Your task to perform on an android device: check out phone information Image 0: 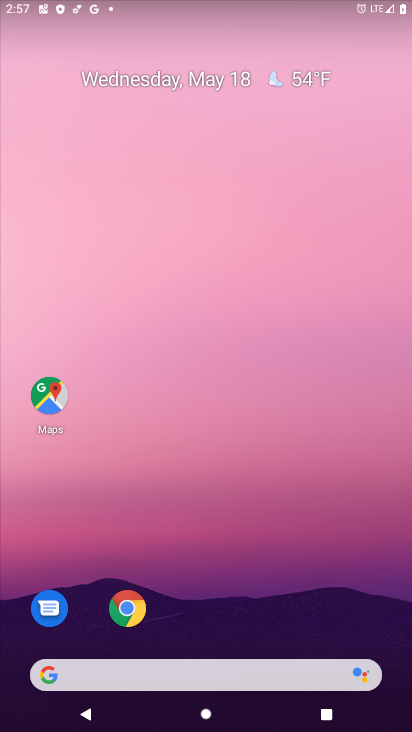
Step 0: drag from (321, 573) to (374, 48)
Your task to perform on an android device: check out phone information Image 1: 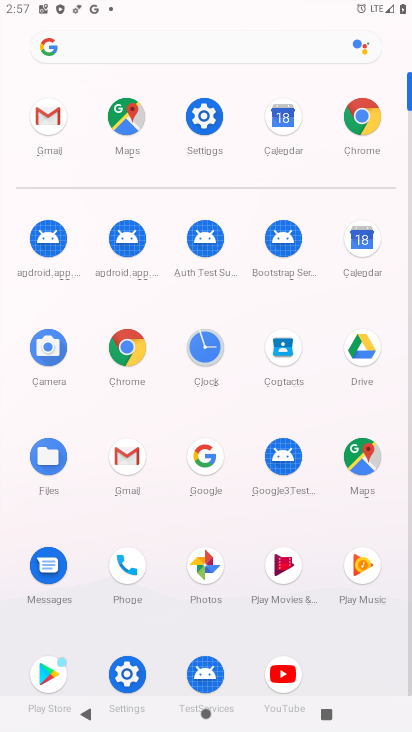
Step 1: click (203, 128)
Your task to perform on an android device: check out phone information Image 2: 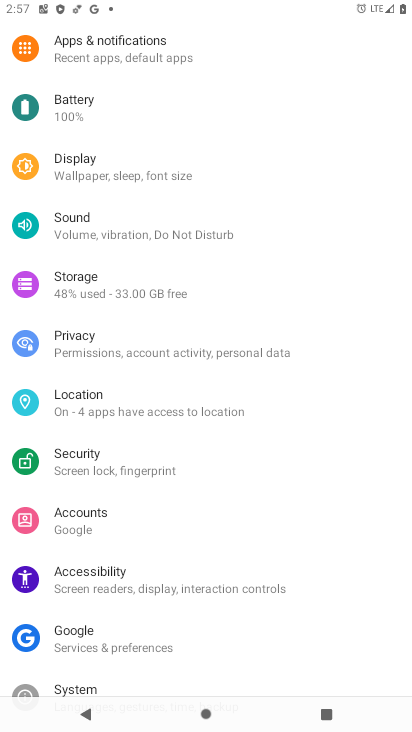
Step 2: drag from (239, 631) to (238, 149)
Your task to perform on an android device: check out phone information Image 3: 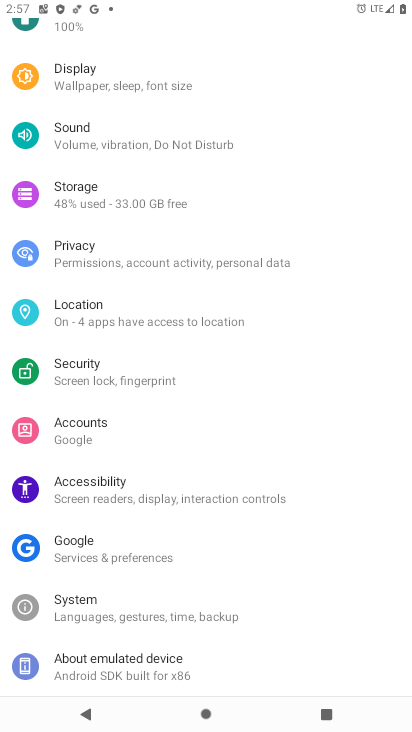
Step 3: click (113, 666)
Your task to perform on an android device: check out phone information Image 4: 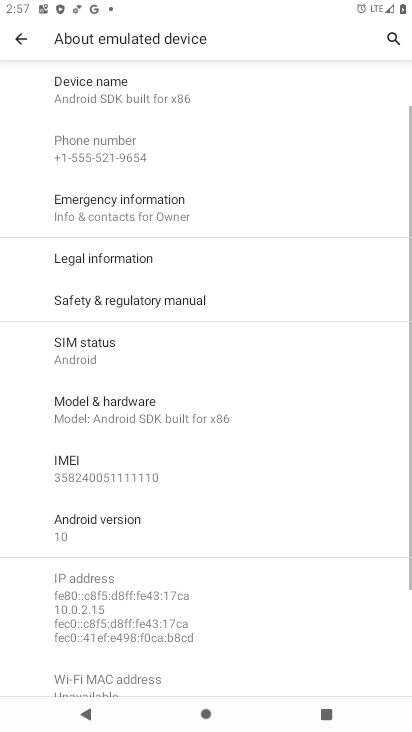
Step 4: task complete